Your task to perform on an android device: turn on notifications settings in the gmail app Image 0: 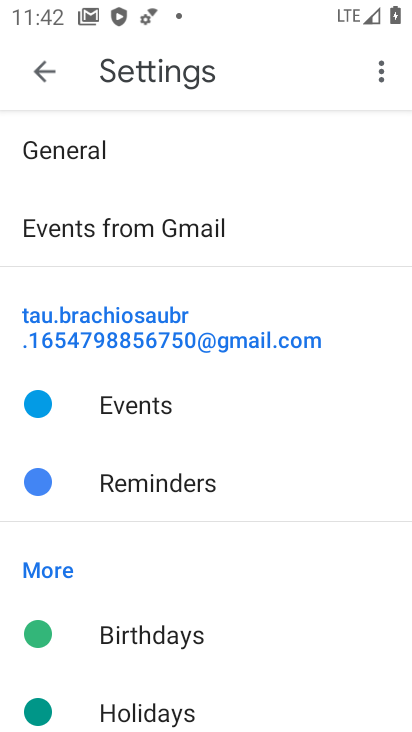
Step 0: press home button
Your task to perform on an android device: turn on notifications settings in the gmail app Image 1: 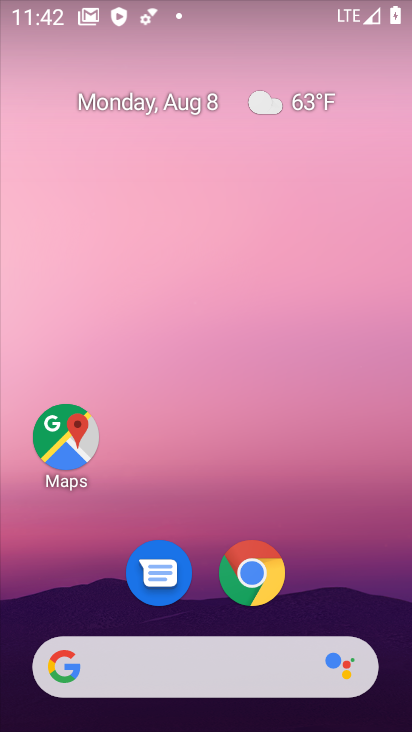
Step 1: drag from (178, 651) to (24, 196)
Your task to perform on an android device: turn on notifications settings in the gmail app Image 2: 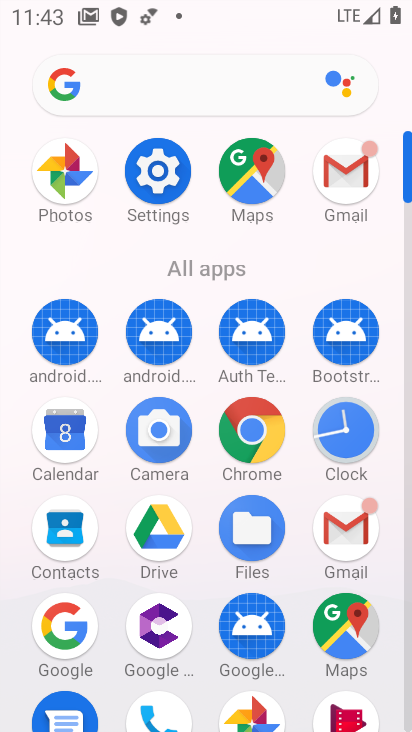
Step 2: click (155, 171)
Your task to perform on an android device: turn on notifications settings in the gmail app Image 3: 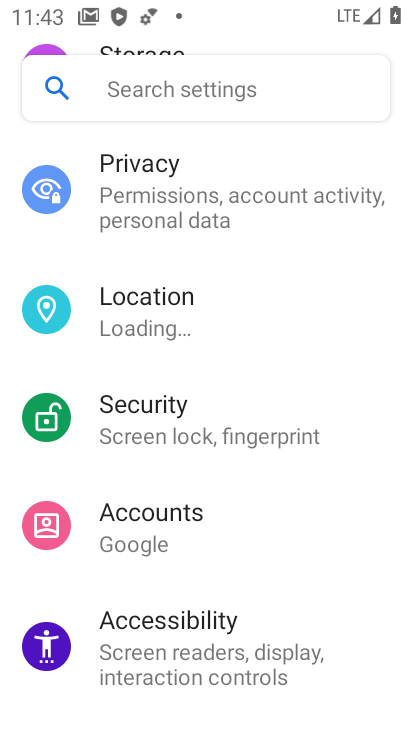
Step 3: drag from (139, 155) to (176, 397)
Your task to perform on an android device: turn on notifications settings in the gmail app Image 4: 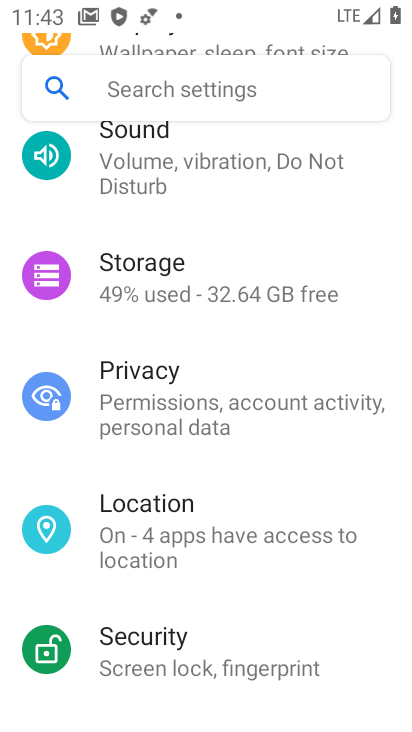
Step 4: drag from (169, 198) to (210, 457)
Your task to perform on an android device: turn on notifications settings in the gmail app Image 5: 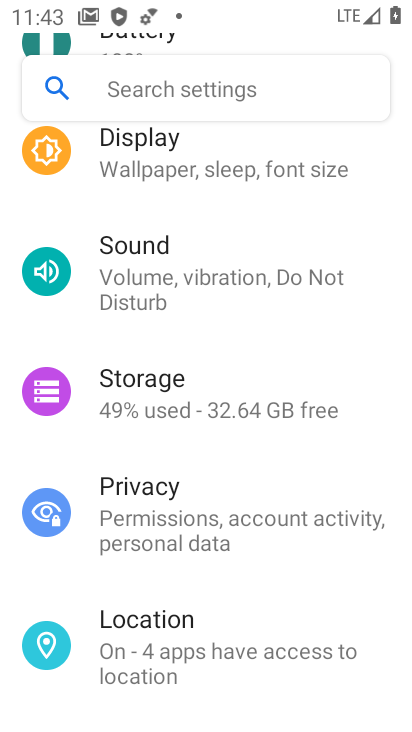
Step 5: drag from (226, 138) to (298, 436)
Your task to perform on an android device: turn on notifications settings in the gmail app Image 6: 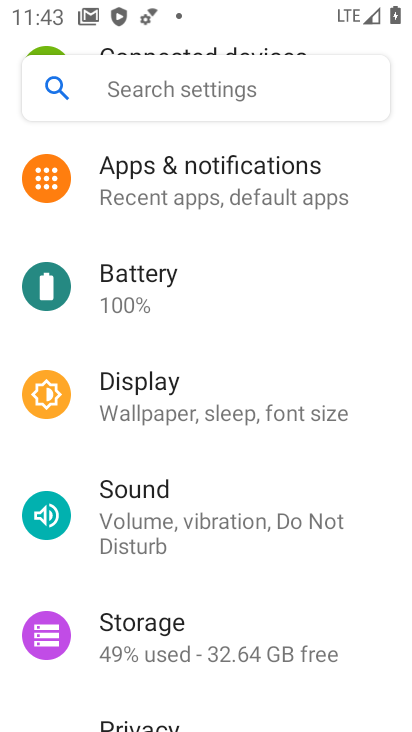
Step 6: click (199, 180)
Your task to perform on an android device: turn on notifications settings in the gmail app Image 7: 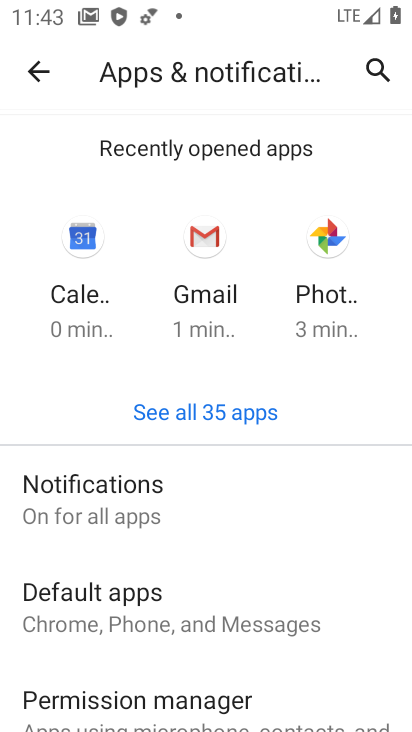
Step 7: drag from (173, 614) to (50, 222)
Your task to perform on an android device: turn on notifications settings in the gmail app Image 8: 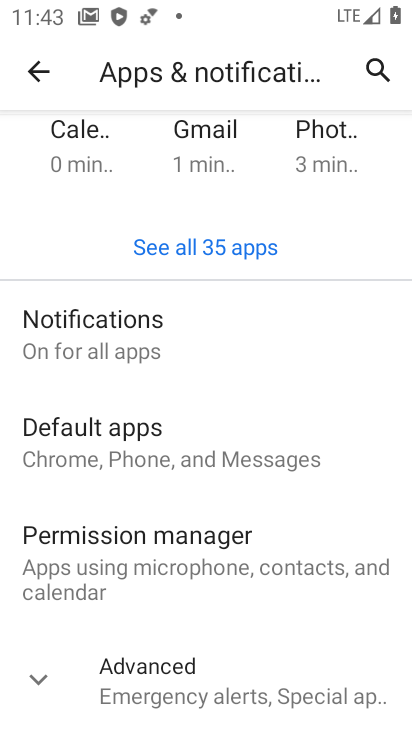
Step 8: click (135, 679)
Your task to perform on an android device: turn on notifications settings in the gmail app Image 9: 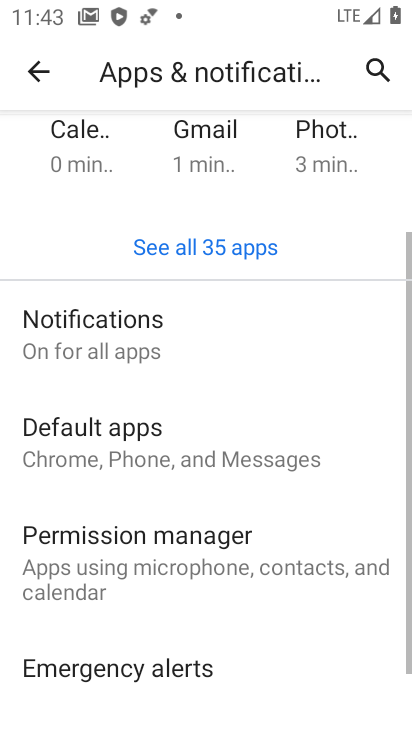
Step 9: task complete